Your task to perform on an android device: Open Youtube and go to "Your channel" Image 0: 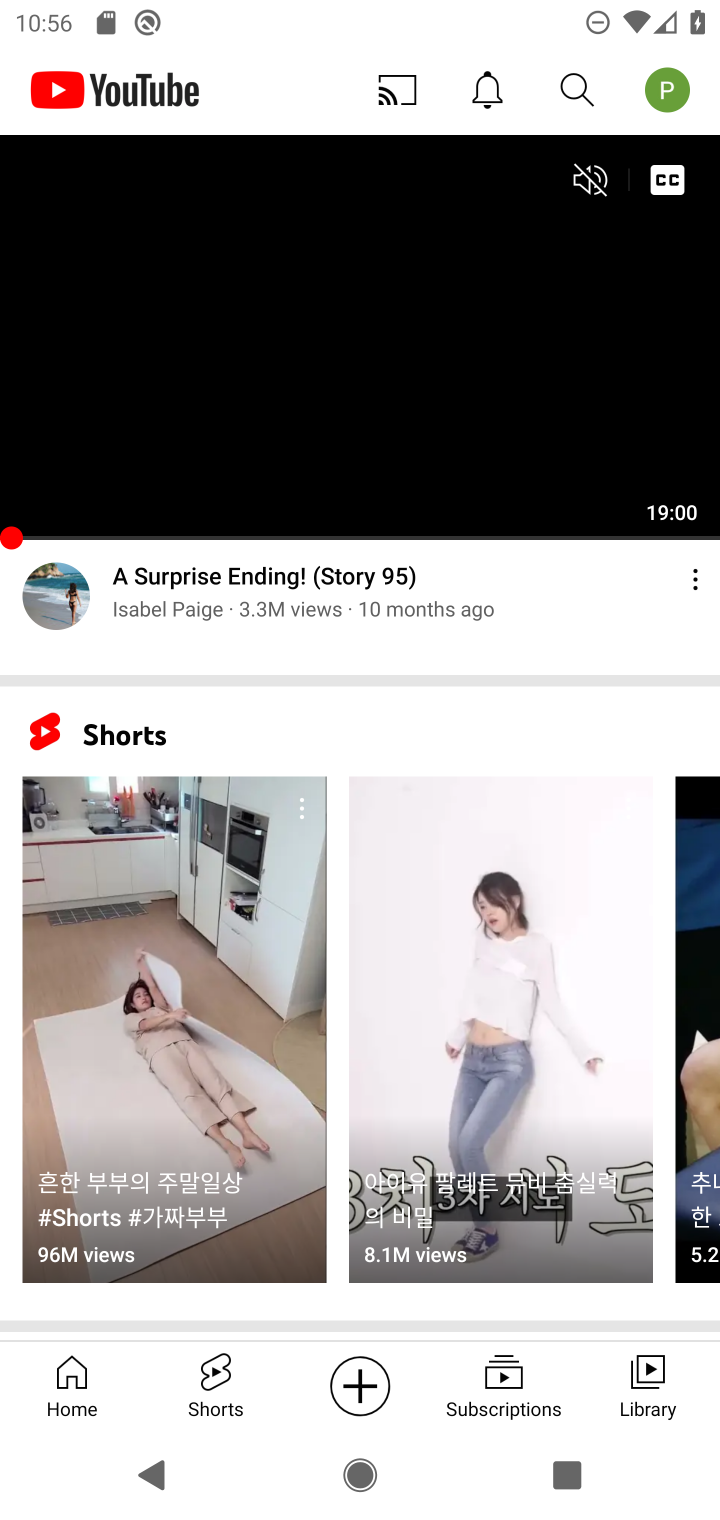
Step 0: click (667, 84)
Your task to perform on an android device: Open Youtube and go to "Your channel" Image 1: 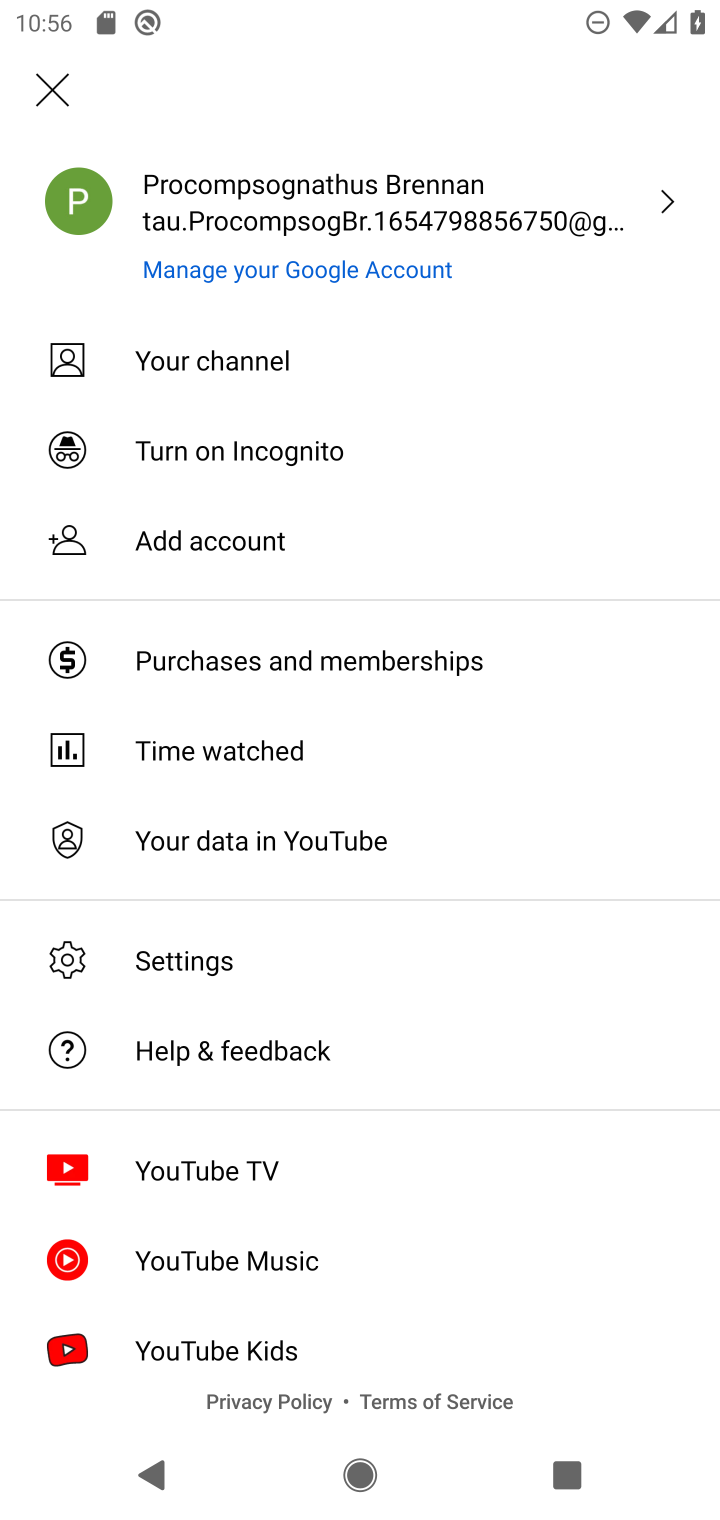
Step 1: click (288, 355)
Your task to perform on an android device: Open Youtube and go to "Your channel" Image 2: 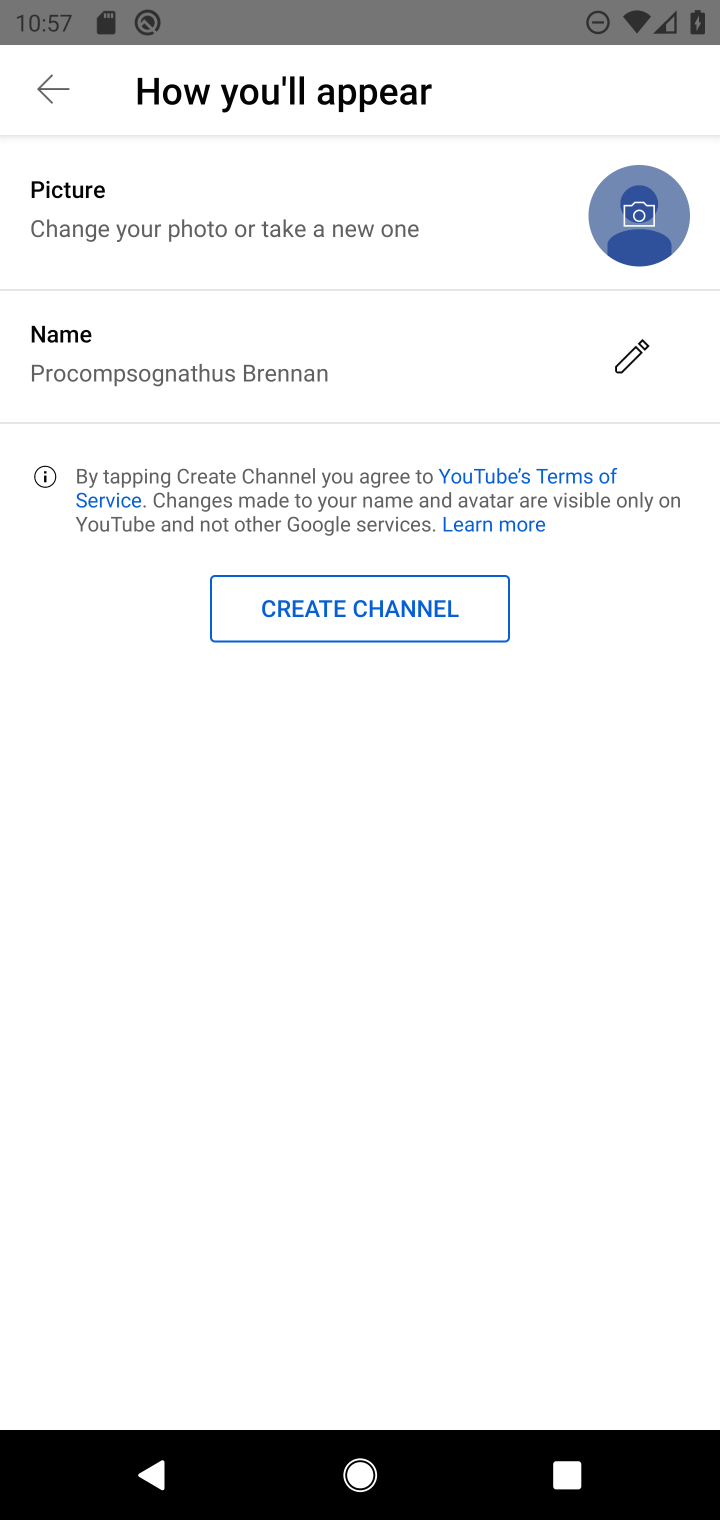
Step 2: task complete